Your task to perform on an android device: stop showing notifications on the lock screen Image 0: 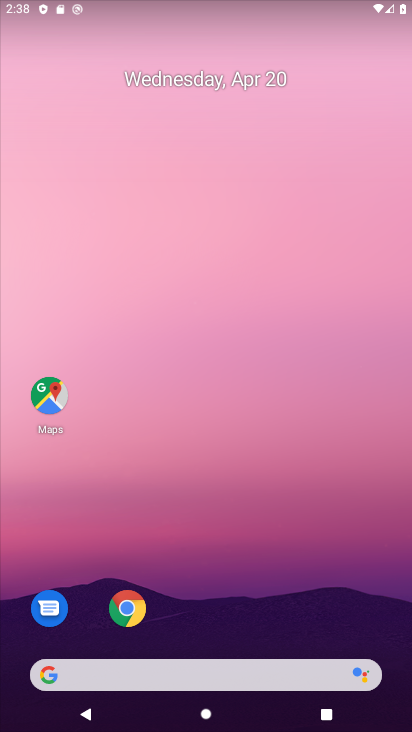
Step 0: drag from (252, 416) to (319, 137)
Your task to perform on an android device: stop showing notifications on the lock screen Image 1: 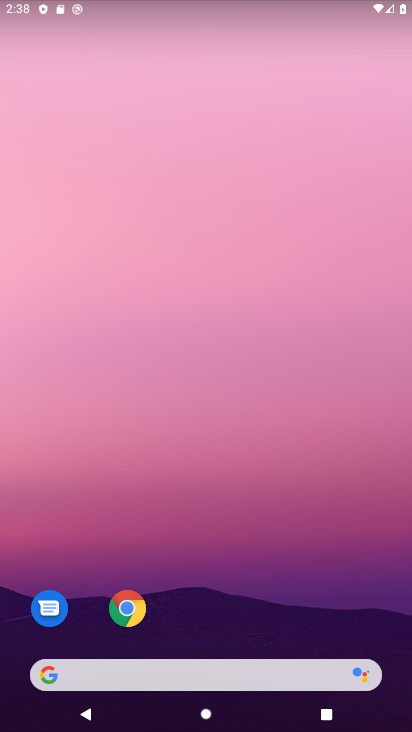
Step 1: drag from (255, 613) to (408, 64)
Your task to perform on an android device: stop showing notifications on the lock screen Image 2: 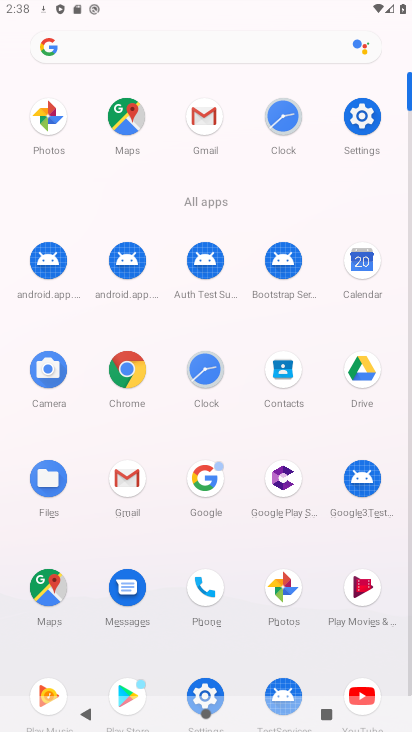
Step 2: click (356, 115)
Your task to perform on an android device: stop showing notifications on the lock screen Image 3: 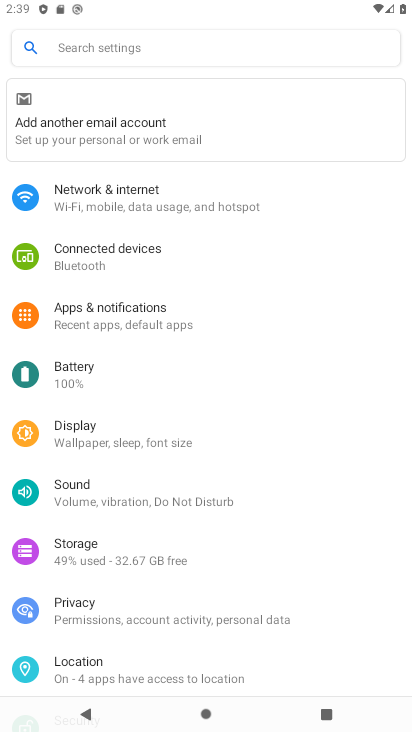
Step 3: click (155, 308)
Your task to perform on an android device: stop showing notifications on the lock screen Image 4: 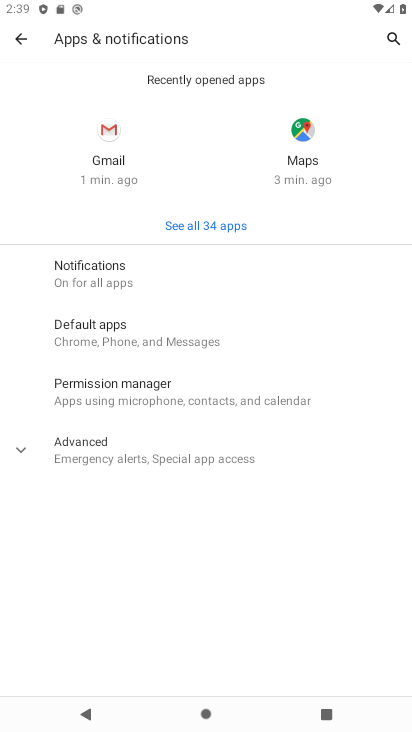
Step 4: click (139, 277)
Your task to perform on an android device: stop showing notifications on the lock screen Image 5: 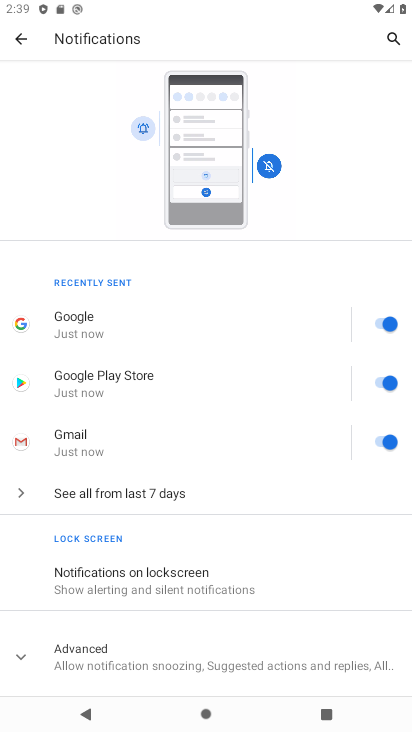
Step 5: click (188, 575)
Your task to perform on an android device: stop showing notifications on the lock screen Image 6: 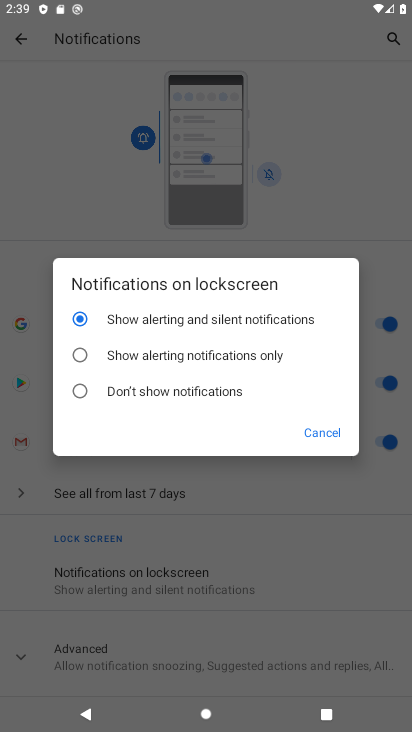
Step 6: click (121, 386)
Your task to perform on an android device: stop showing notifications on the lock screen Image 7: 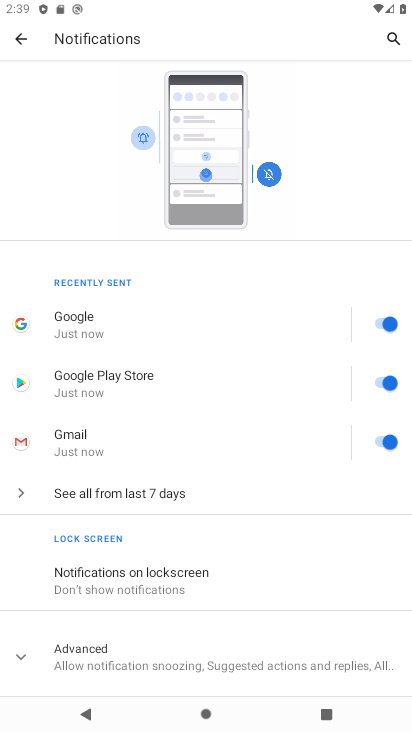
Step 7: task complete